Your task to perform on an android device: turn off airplane mode Image 0: 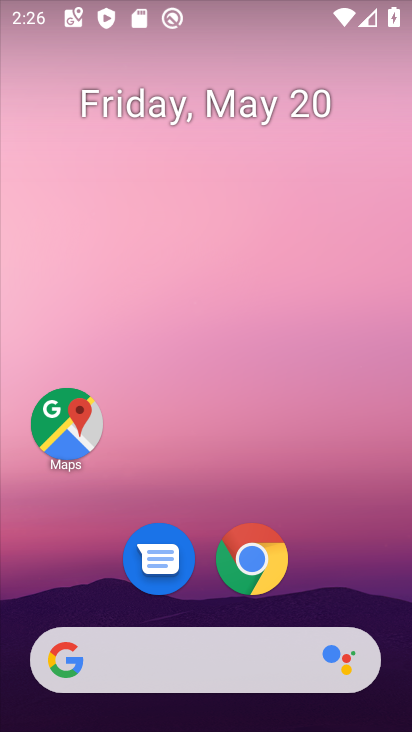
Step 0: drag from (217, 476) to (216, 31)
Your task to perform on an android device: turn off airplane mode Image 1: 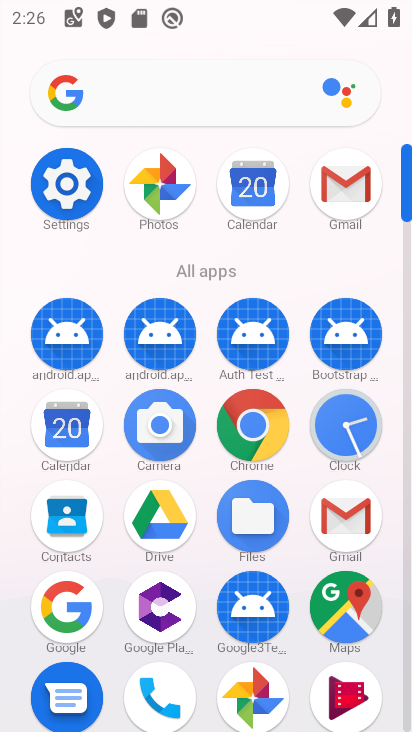
Step 1: click (74, 178)
Your task to perform on an android device: turn off airplane mode Image 2: 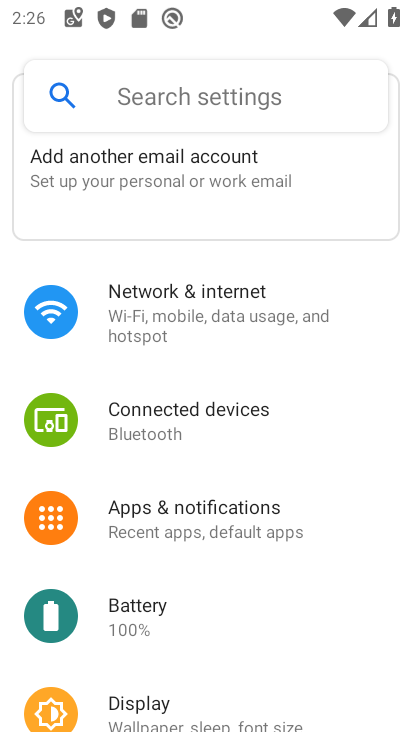
Step 2: click (174, 306)
Your task to perform on an android device: turn off airplane mode Image 3: 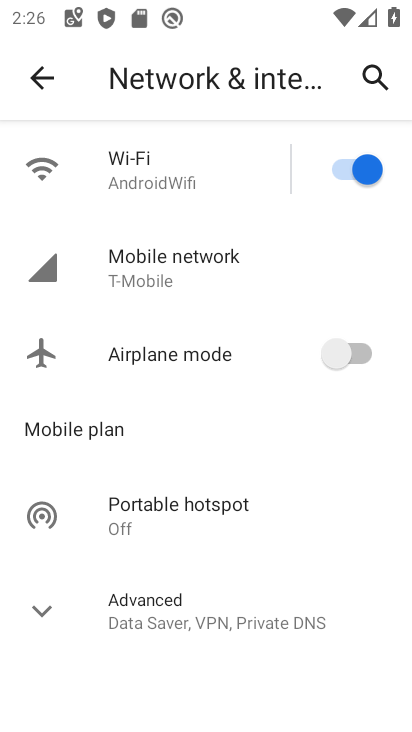
Step 3: task complete